Your task to perform on an android device: move a message to another label in the gmail app Image 0: 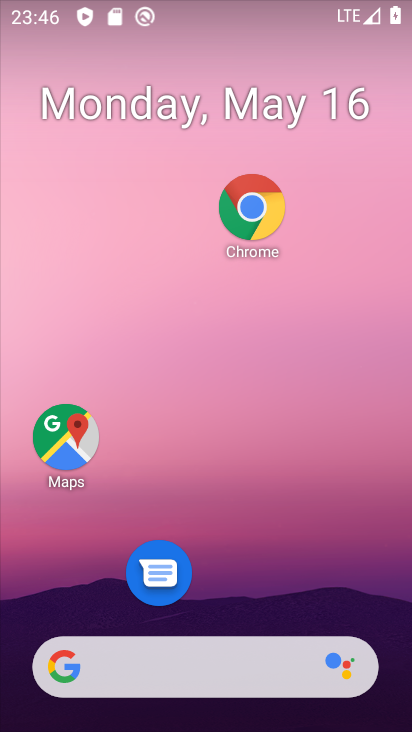
Step 0: drag from (264, 662) to (293, 43)
Your task to perform on an android device: move a message to another label in the gmail app Image 1: 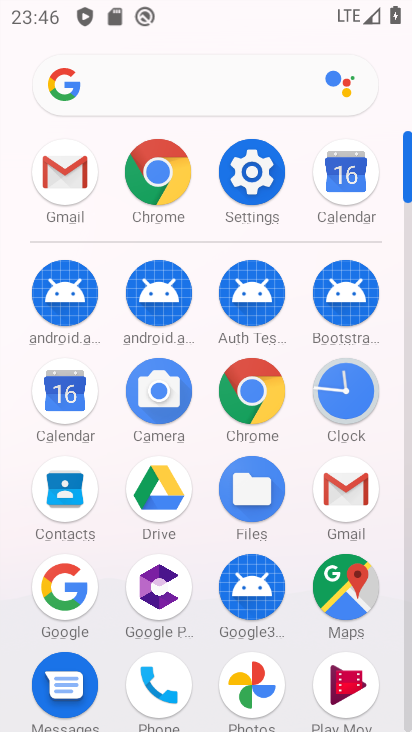
Step 1: click (348, 488)
Your task to perform on an android device: move a message to another label in the gmail app Image 2: 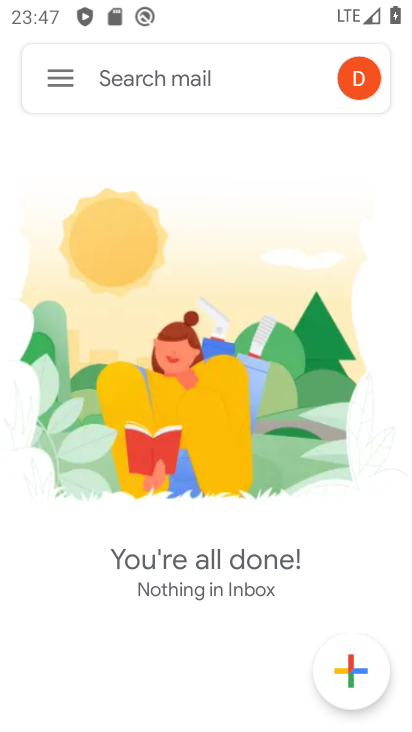
Step 2: click (63, 82)
Your task to perform on an android device: move a message to another label in the gmail app Image 3: 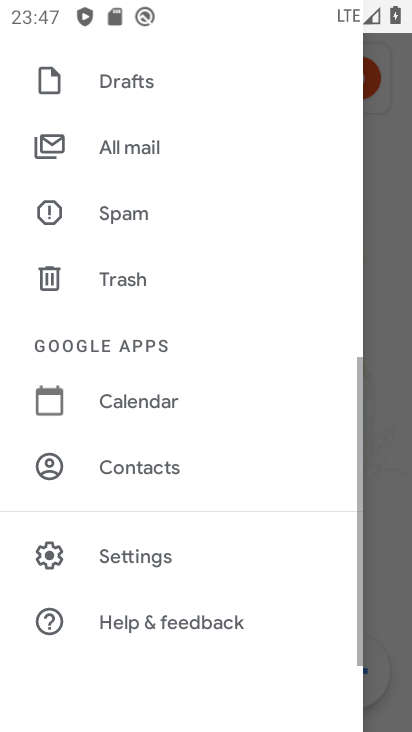
Step 3: drag from (149, 206) to (218, 644)
Your task to perform on an android device: move a message to another label in the gmail app Image 4: 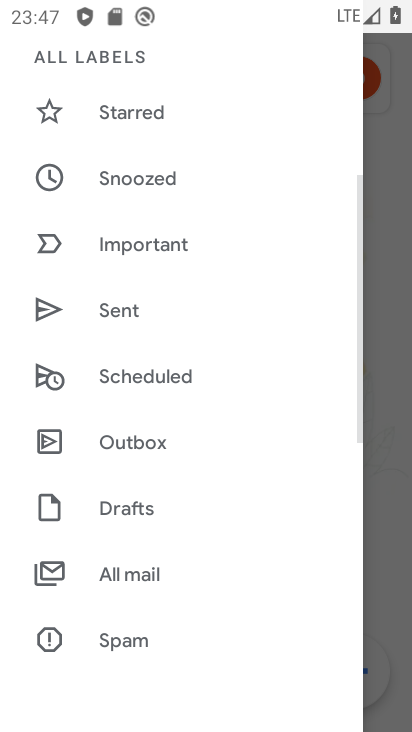
Step 4: drag from (170, 168) to (187, 522)
Your task to perform on an android device: move a message to another label in the gmail app Image 5: 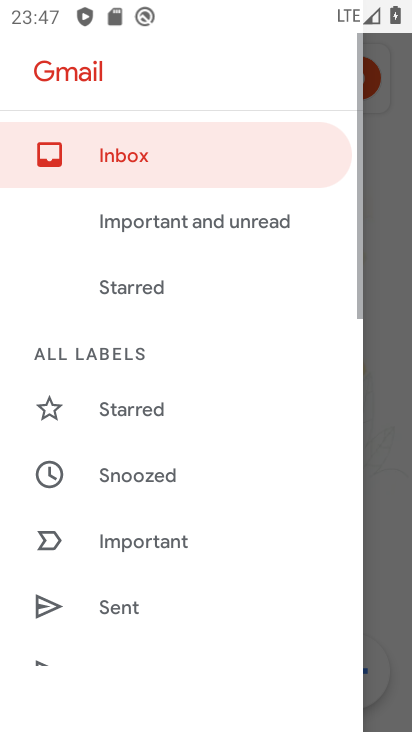
Step 5: click (152, 412)
Your task to perform on an android device: move a message to another label in the gmail app Image 6: 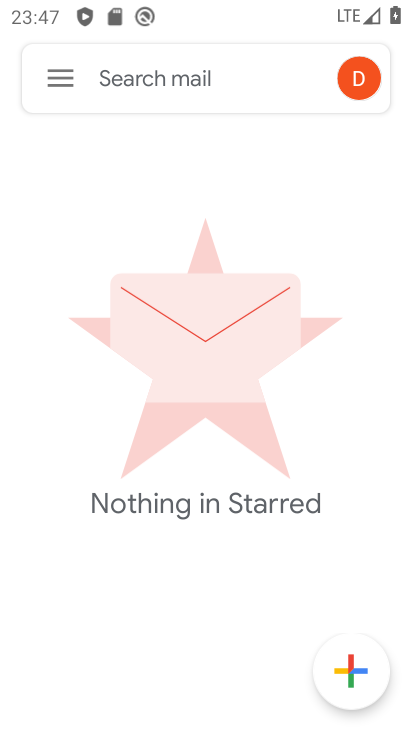
Step 6: task complete